Your task to perform on an android device: move an email to a new category in the gmail app Image 0: 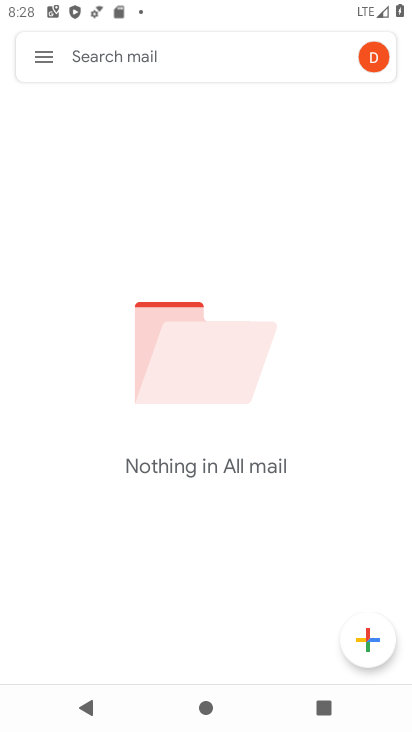
Step 0: press home button
Your task to perform on an android device: move an email to a new category in the gmail app Image 1: 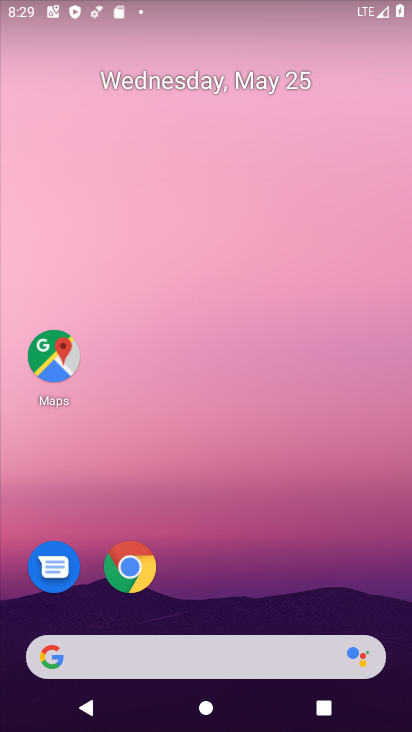
Step 1: drag from (268, 519) to (221, 27)
Your task to perform on an android device: move an email to a new category in the gmail app Image 2: 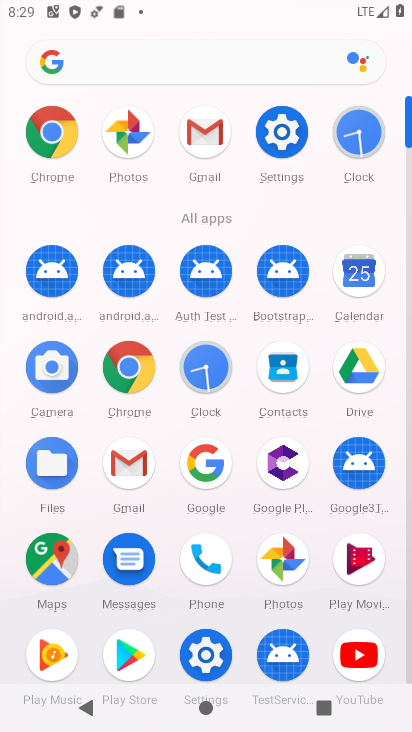
Step 2: click (212, 121)
Your task to perform on an android device: move an email to a new category in the gmail app Image 3: 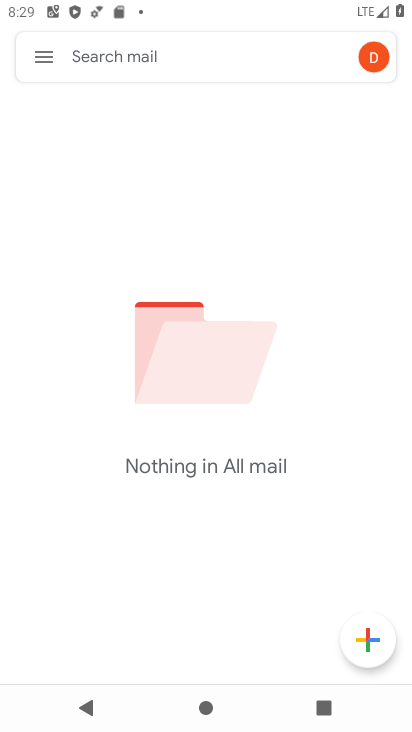
Step 3: task complete